Your task to perform on an android device: Set the phone to "Do not disturb". Image 0: 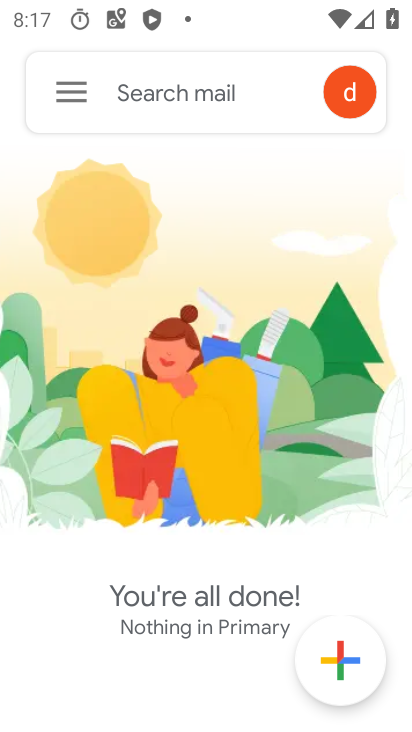
Step 0: press home button
Your task to perform on an android device: Set the phone to "Do not disturb". Image 1: 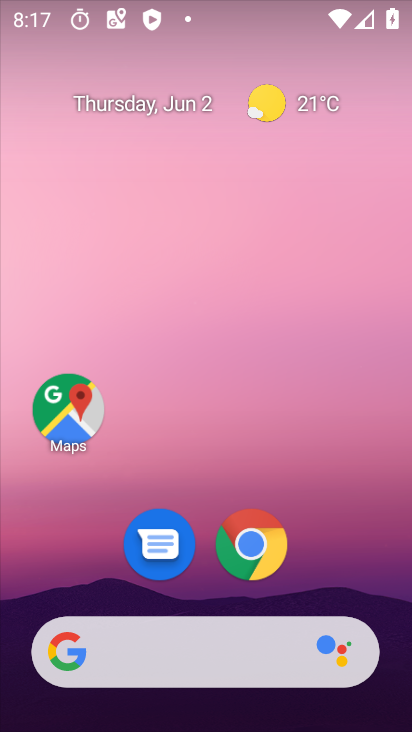
Step 1: drag from (352, 579) to (272, 95)
Your task to perform on an android device: Set the phone to "Do not disturb". Image 2: 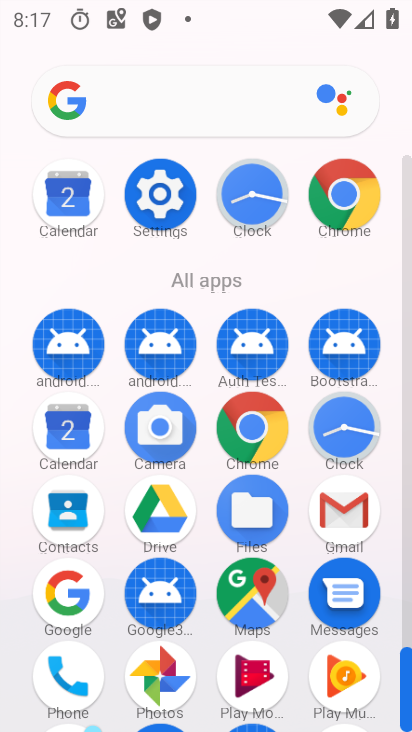
Step 2: click (172, 207)
Your task to perform on an android device: Set the phone to "Do not disturb". Image 3: 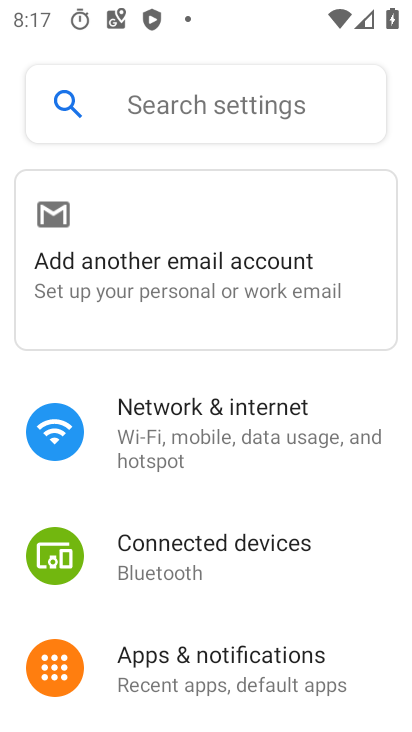
Step 3: drag from (263, 709) to (172, 212)
Your task to perform on an android device: Set the phone to "Do not disturb". Image 4: 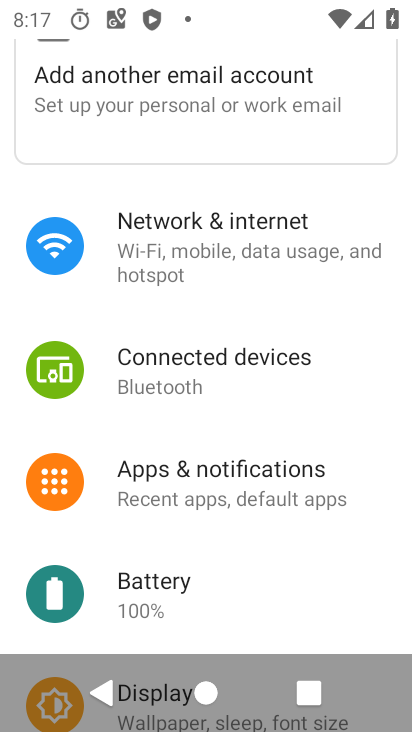
Step 4: drag from (267, 666) to (227, 372)
Your task to perform on an android device: Set the phone to "Do not disturb". Image 5: 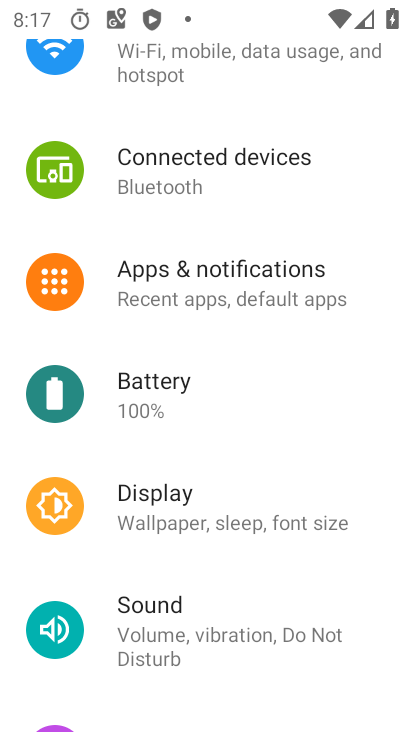
Step 5: drag from (274, 623) to (251, 366)
Your task to perform on an android device: Set the phone to "Do not disturb". Image 6: 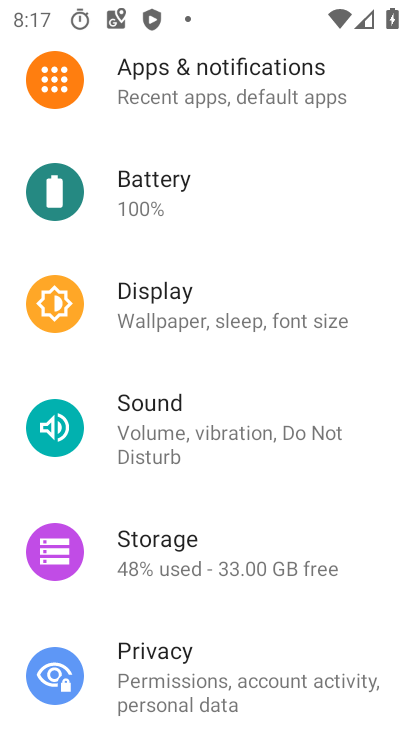
Step 6: click (246, 446)
Your task to perform on an android device: Set the phone to "Do not disturb". Image 7: 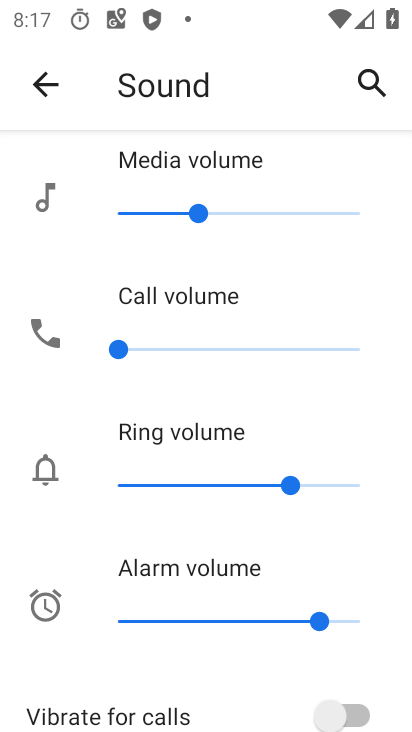
Step 7: drag from (276, 656) to (228, 214)
Your task to perform on an android device: Set the phone to "Do not disturb". Image 8: 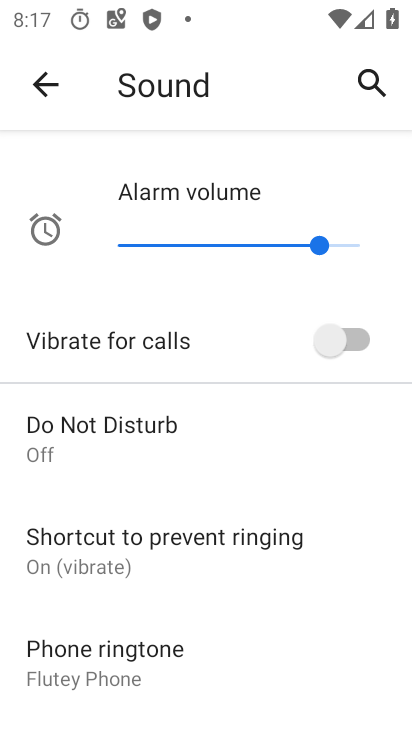
Step 8: click (238, 432)
Your task to perform on an android device: Set the phone to "Do not disturb". Image 9: 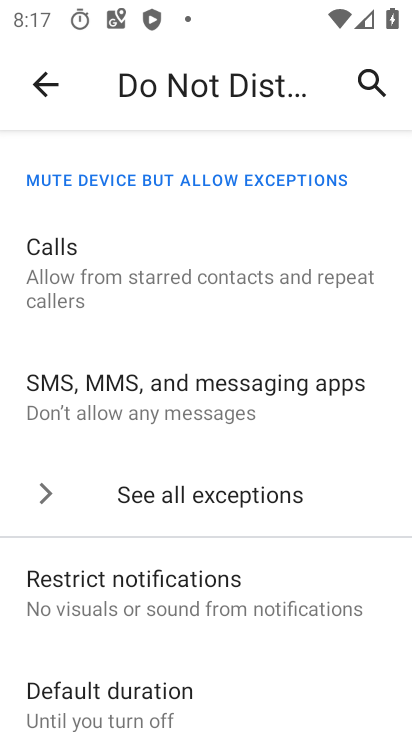
Step 9: drag from (260, 560) to (221, 272)
Your task to perform on an android device: Set the phone to "Do not disturb". Image 10: 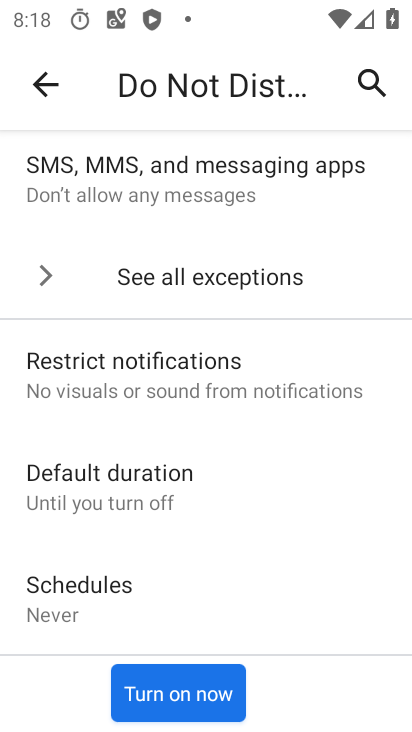
Step 10: click (180, 682)
Your task to perform on an android device: Set the phone to "Do not disturb". Image 11: 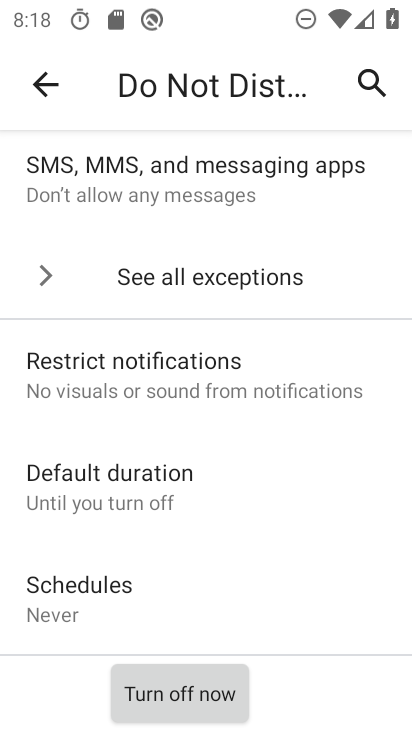
Step 11: task complete